Your task to perform on an android device: change text size in settings app Image 0: 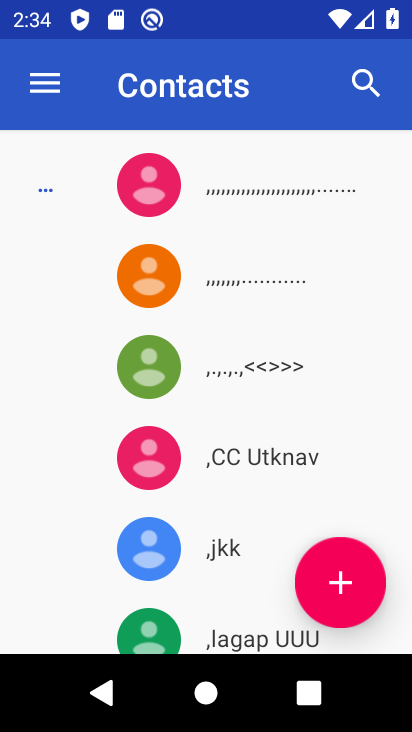
Step 0: press home button
Your task to perform on an android device: change text size in settings app Image 1: 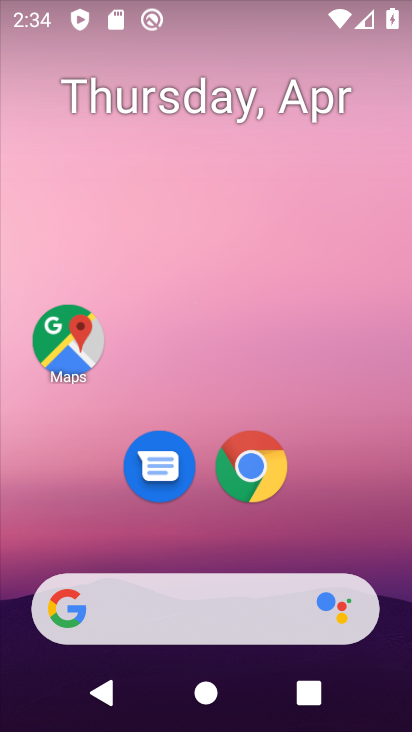
Step 1: drag from (356, 509) to (297, 86)
Your task to perform on an android device: change text size in settings app Image 2: 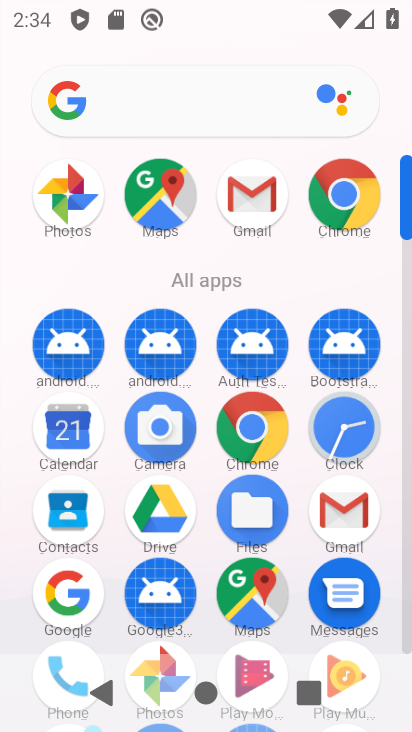
Step 2: drag from (200, 528) to (212, 166)
Your task to perform on an android device: change text size in settings app Image 3: 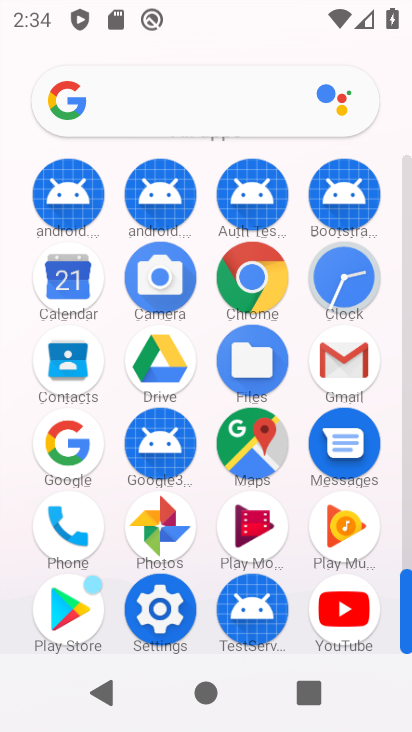
Step 3: click (160, 587)
Your task to perform on an android device: change text size in settings app Image 4: 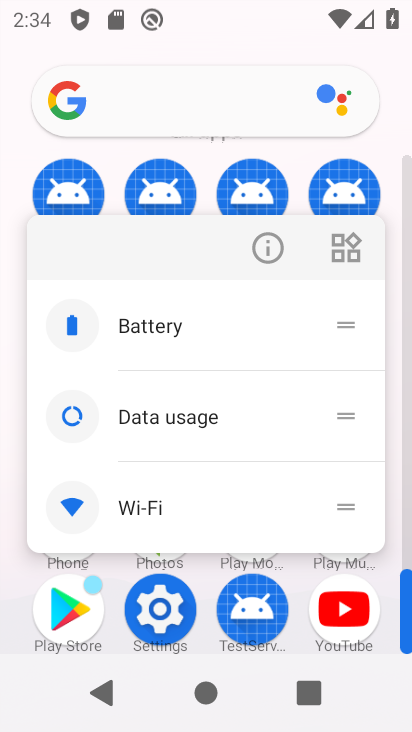
Step 4: click (160, 587)
Your task to perform on an android device: change text size in settings app Image 5: 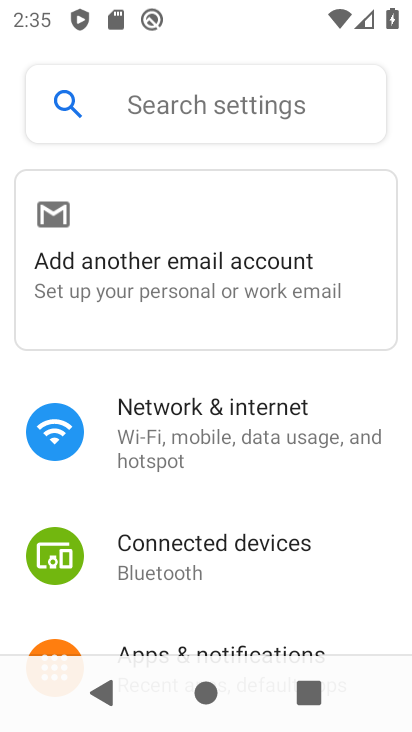
Step 5: drag from (192, 598) to (186, 361)
Your task to perform on an android device: change text size in settings app Image 6: 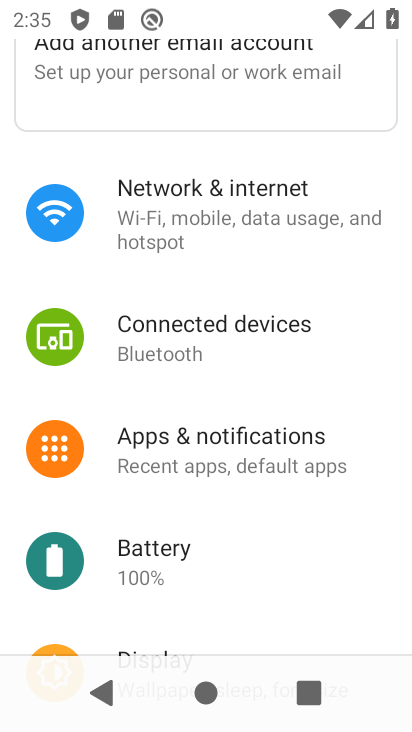
Step 6: drag from (259, 569) to (264, 260)
Your task to perform on an android device: change text size in settings app Image 7: 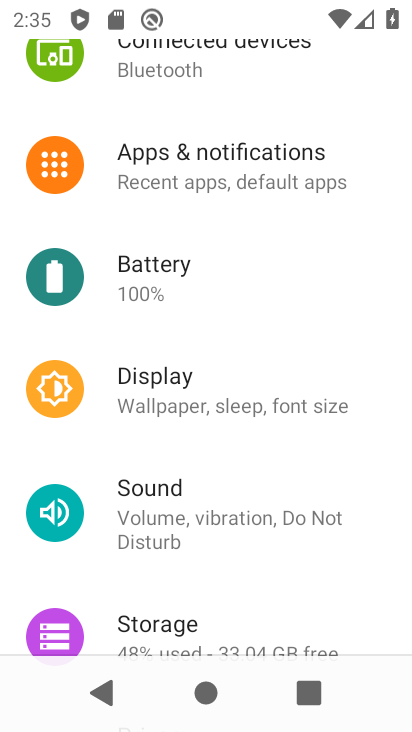
Step 7: click (252, 398)
Your task to perform on an android device: change text size in settings app Image 8: 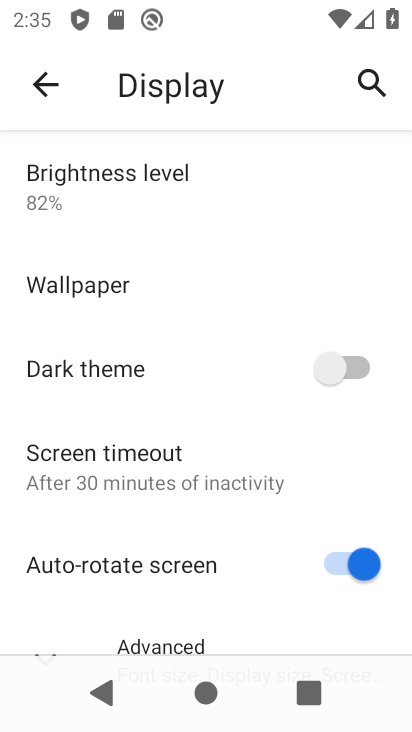
Step 8: drag from (215, 450) to (218, 281)
Your task to perform on an android device: change text size in settings app Image 9: 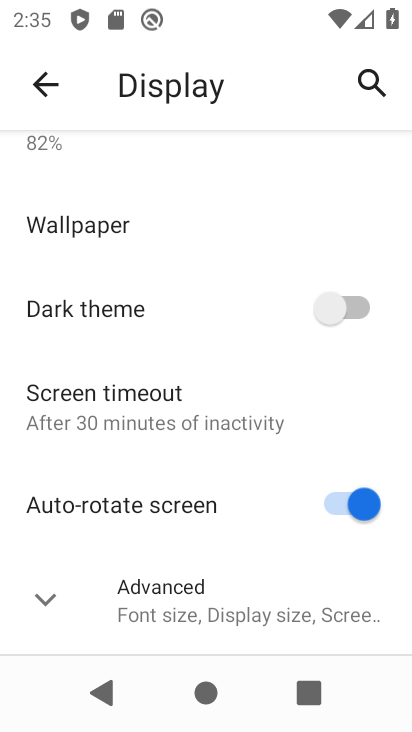
Step 9: click (45, 603)
Your task to perform on an android device: change text size in settings app Image 10: 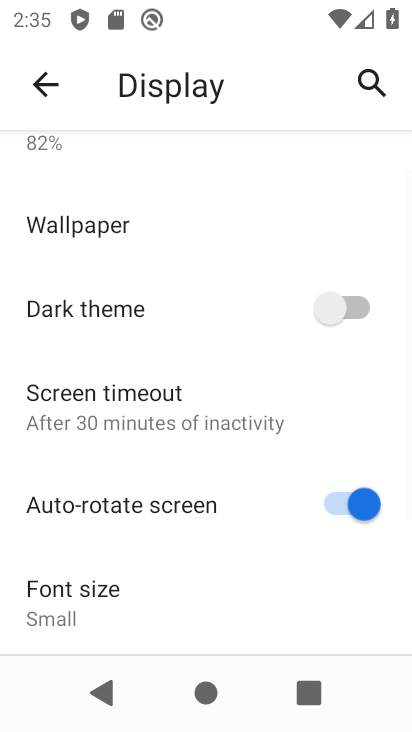
Step 10: click (149, 617)
Your task to perform on an android device: change text size in settings app Image 11: 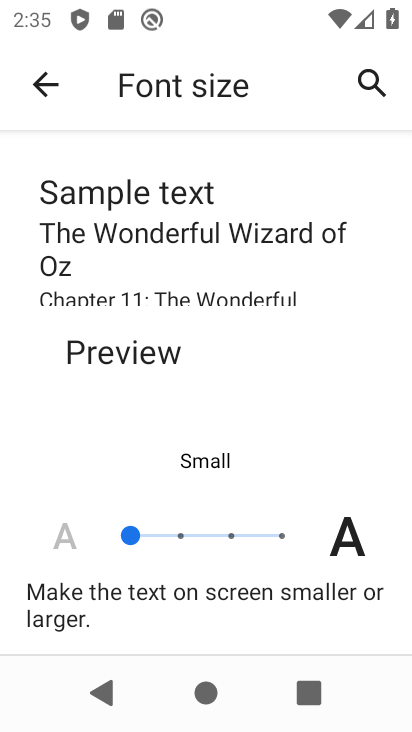
Step 11: click (173, 532)
Your task to perform on an android device: change text size in settings app Image 12: 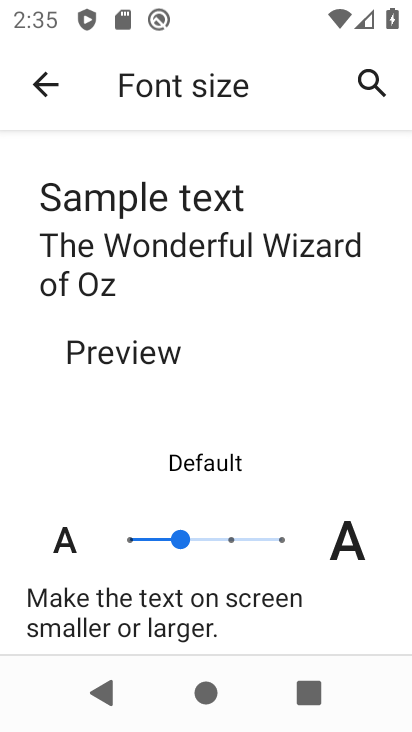
Step 12: task complete